Your task to perform on an android device: Do I have any events this weekend? Image 0: 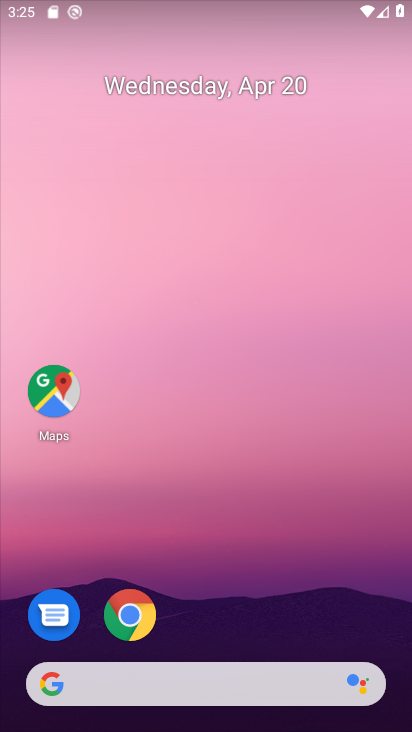
Step 0: drag from (212, 544) to (212, 178)
Your task to perform on an android device: Do I have any events this weekend? Image 1: 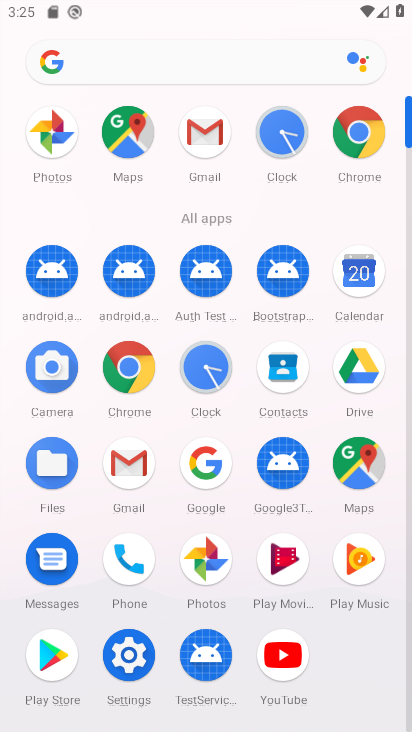
Step 1: click (368, 275)
Your task to perform on an android device: Do I have any events this weekend? Image 2: 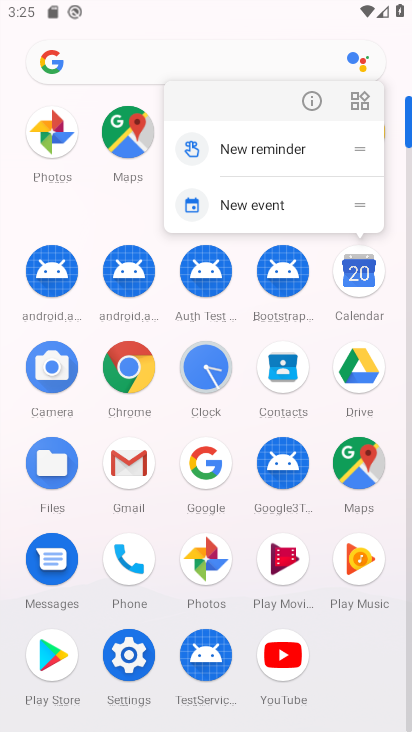
Step 2: click (369, 281)
Your task to perform on an android device: Do I have any events this weekend? Image 3: 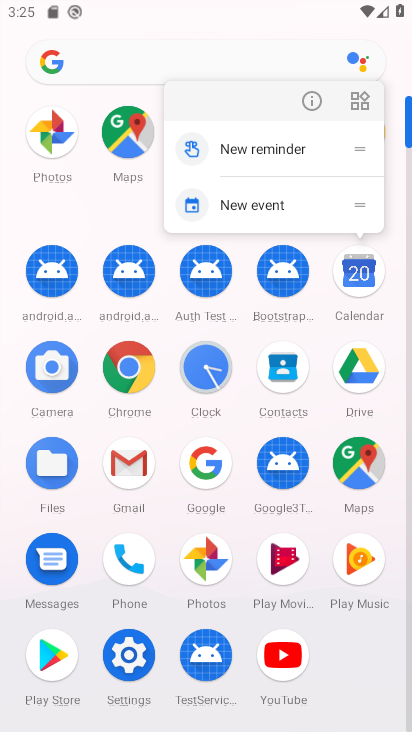
Step 3: click (369, 281)
Your task to perform on an android device: Do I have any events this weekend? Image 4: 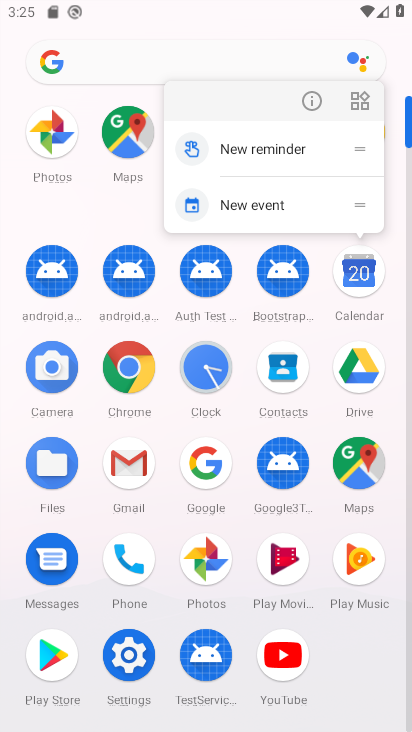
Step 4: click (369, 281)
Your task to perform on an android device: Do I have any events this weekend? Image 5: 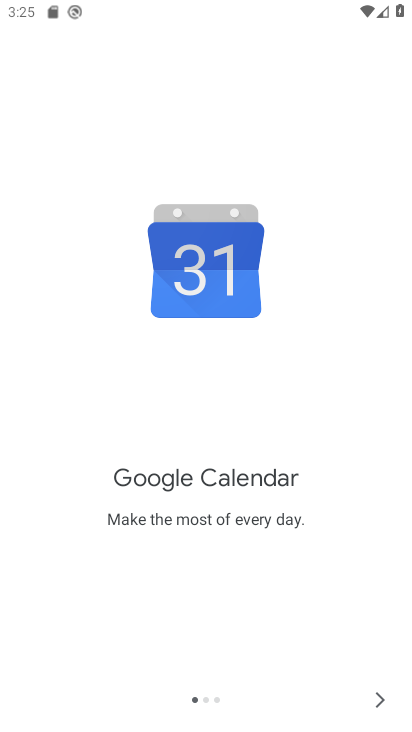
Step 5: click (372, 692)
Your task to perform on an android device: Do I have any events this weekend? Image 6: 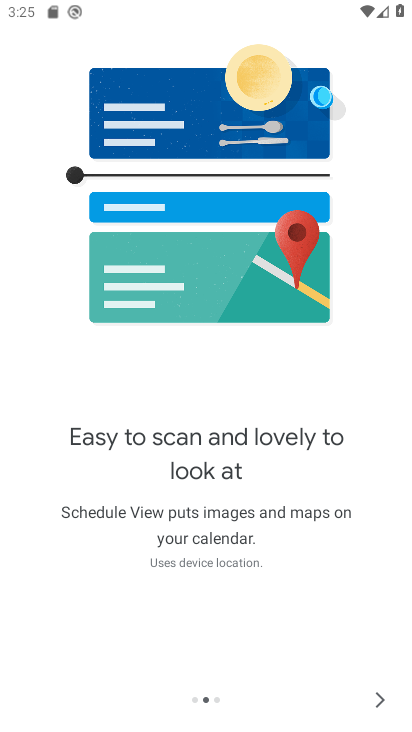
Step 6: click (373, 682)
Your task to perform on an android device: Do I have any events this weekend? Image 7: 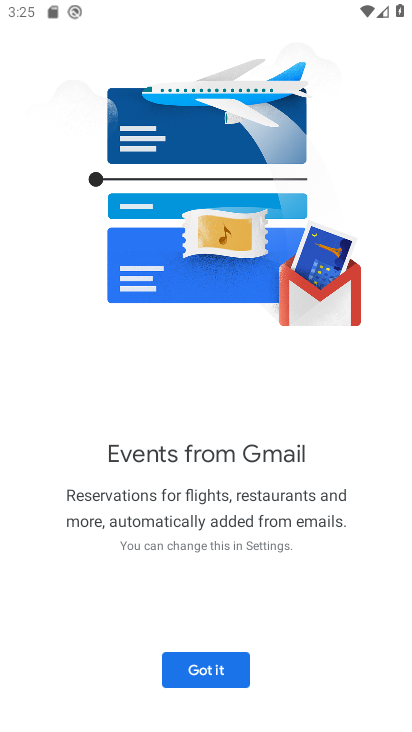
Step 7: click (207, 680)
Your task to perform on an android device: Do I have any events this weekend? Image 8: 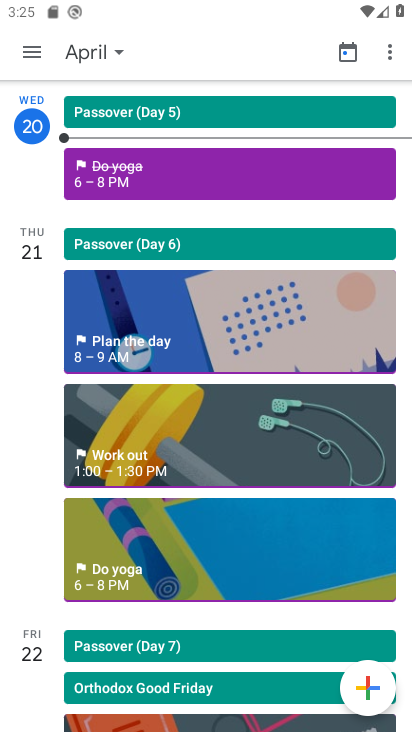
Step 8: click (100, 58)
Your task to perform on an android device: Do I have any events this weekend? Image 9: 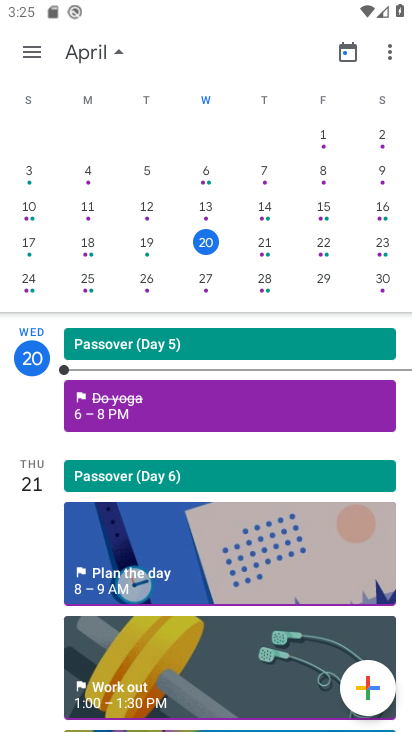
Step 9: click (383, 252)
Your task to perform on an android device: Do I have any events this weekend? Image 10: 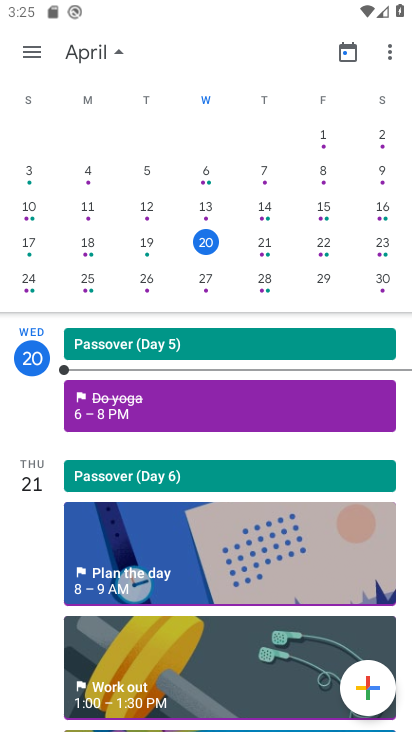
Step 10: click (382, 246)
Your task to perform on an android device: Do I have any events this weekend? Image 11: 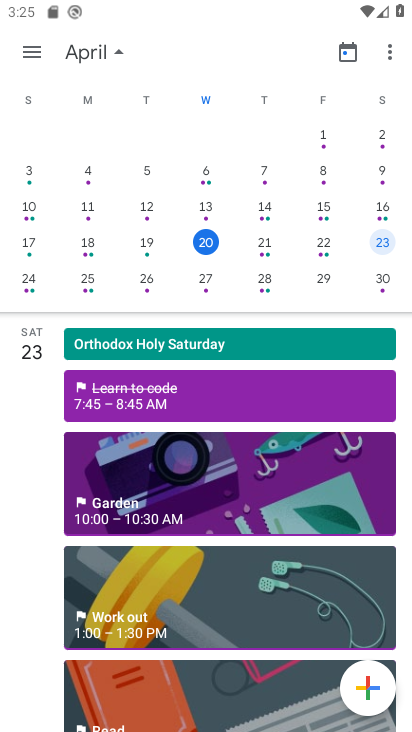
Step 11: click (35, 288)
Your task to perform on an android device: Do I have any events this weekend? Image 12: 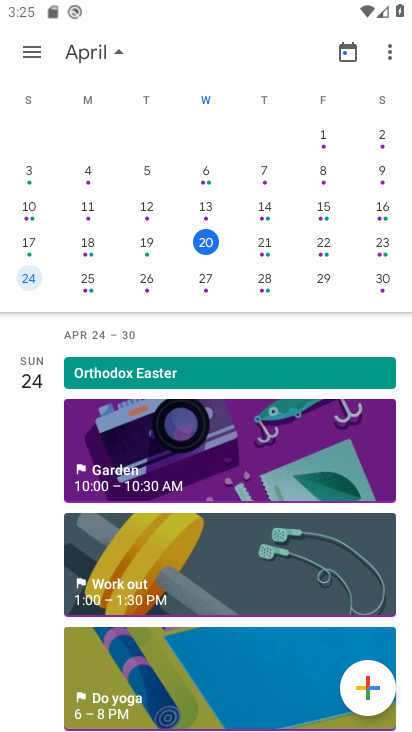
Step 12: task complete